Your task to perform on an android device: Search for vegetarian restaurants on Maps Image 0: 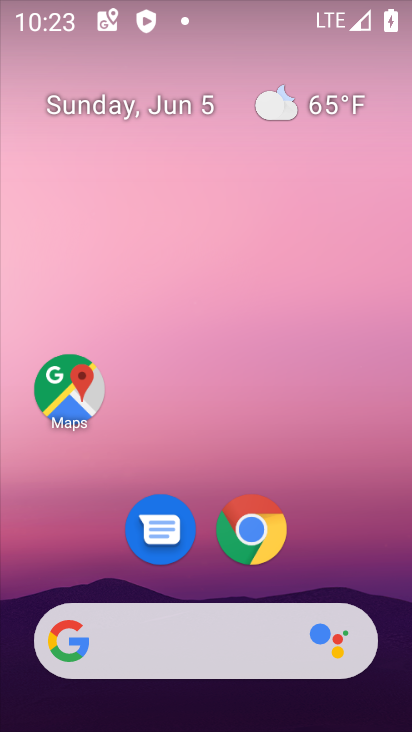
Step 0: click (65, 373)
Your task to perform on an android device: Search for vegetarian restaurants on Maps Image 1: 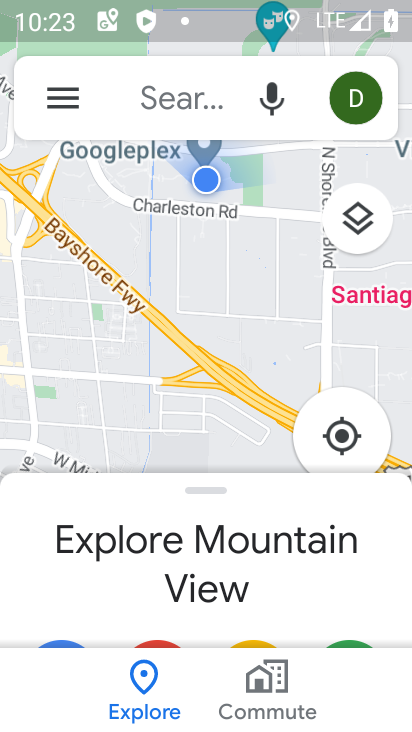
Step 1: click (186, 104)
Your task to perform on an android device: Search for vegetarian restaurants on Maps Image 2: 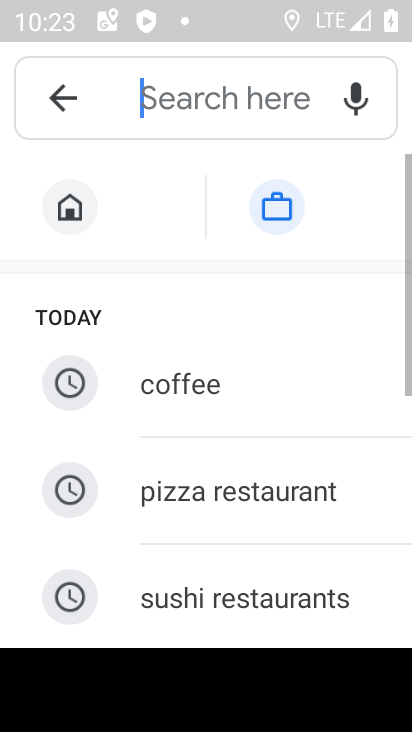
Step 2: drag from (245, 617) to (320, 2)
Your task to perform on an android device: Search for vegetarian restaurants on Maps Image 3: 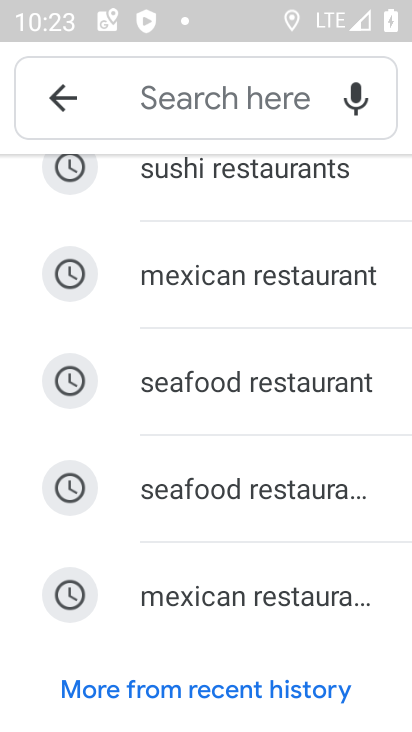
Step 3: type "vegetarian"
Your task to perform on an android device: Search for vegetarian restaurants on Maps Image 4: 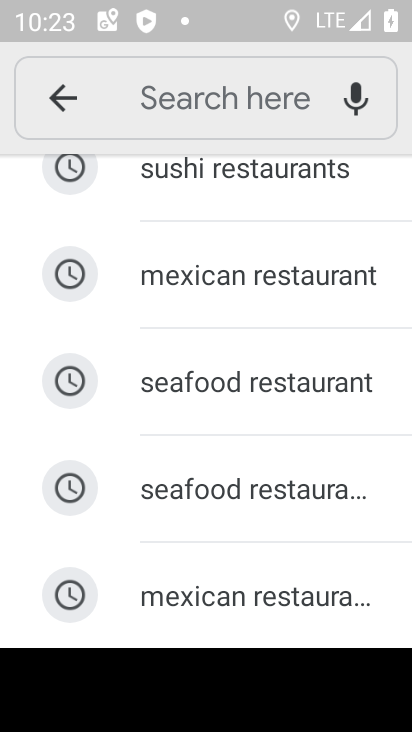
Step 4: drag from (296, 444) to (297, 10)
Your task to perform on an android device: Search for vegetarian restaurants on Maps Image 5: 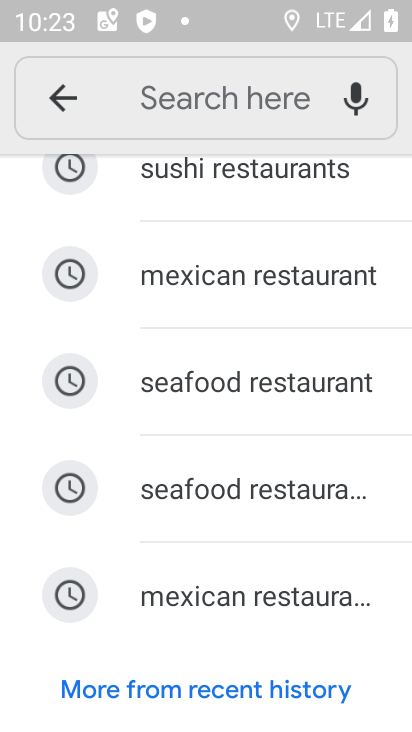
Step 5: click (217, 108)
Your task to perform on an android device: Search for vegetarian restaurants on Maps Image 6: 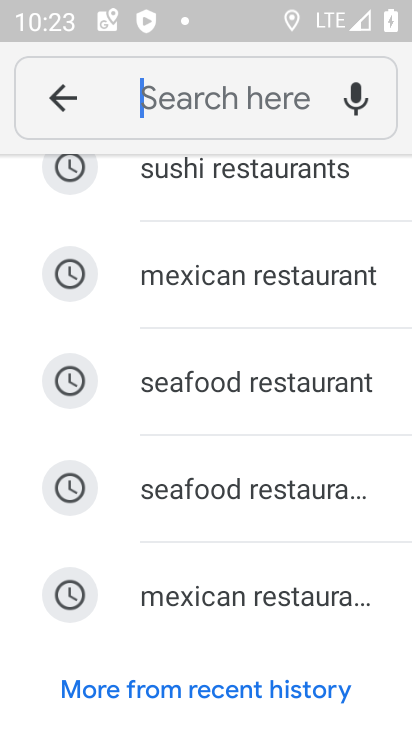
Step 6: click (224, 101)
Your task to perform on an android device: Search for vegetarian restaurants on Maps Image 7: 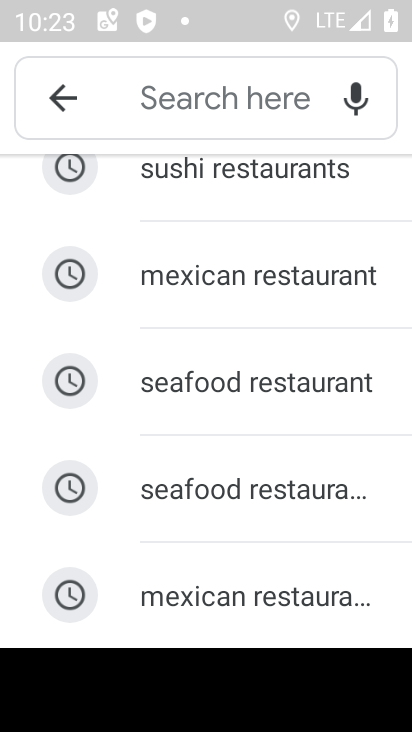
Step 7: type "vegetarian"
Your task to perform on an android device: Search for vegetarian restaurants on Maps Image 8: 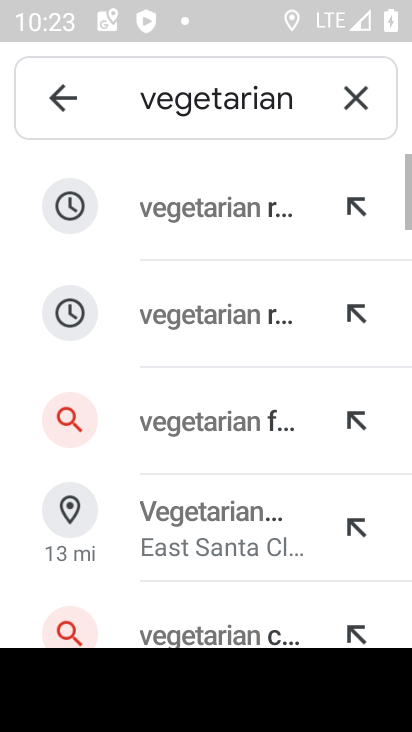
Step 8: click (271, 190)
Your task to perform on an android device: Search for vegetarian restaurants on Maps Image 9: 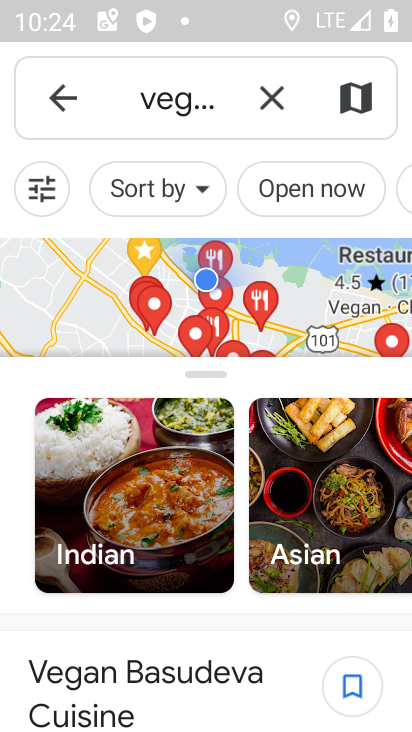
Step 9: task complete